Your task to perform on an android device: turn off sleep mode Image 0: 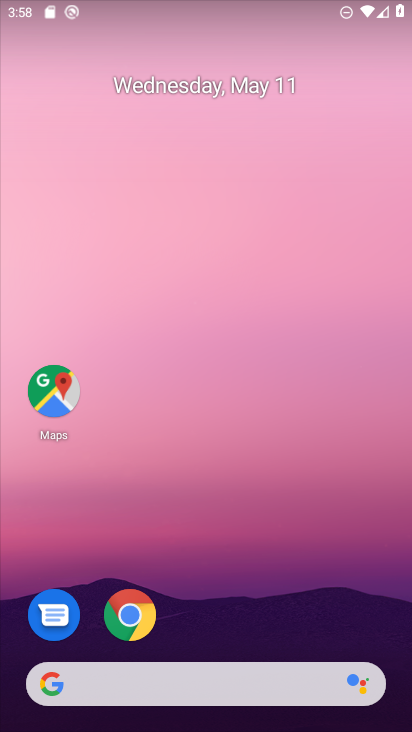
Step 0: drag from (222, 625) to (274, 15)
Your task to perform on an android device: turn off sleep mode Image 1: 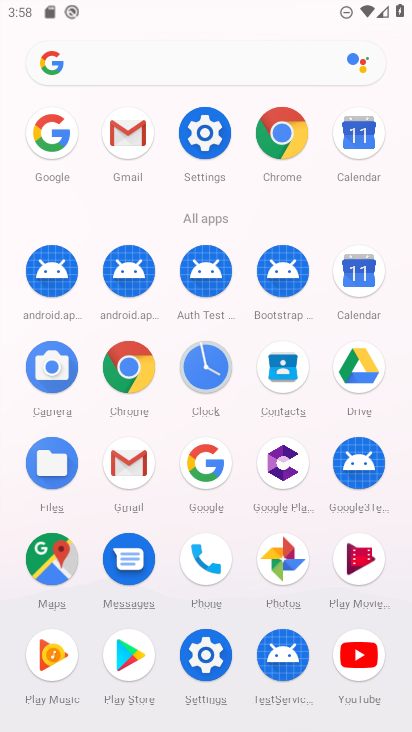
Step 1: click (213, 150)
Your task to perform on an android device: turn off sleep mode Image 2: 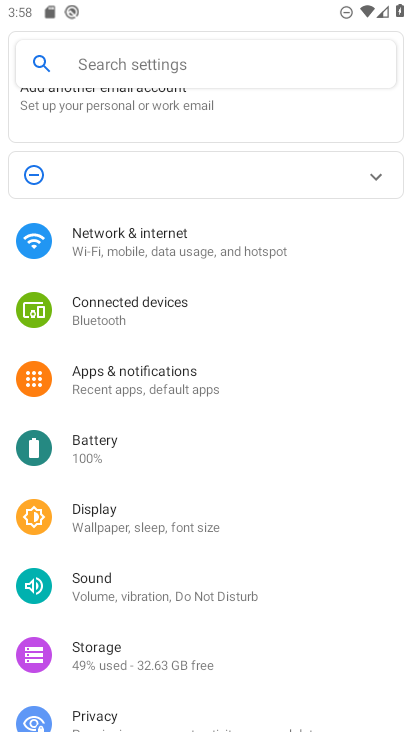
Step 2: click (203, 520)
Your task to perform on an android device: turn off sleep mode Image 3: 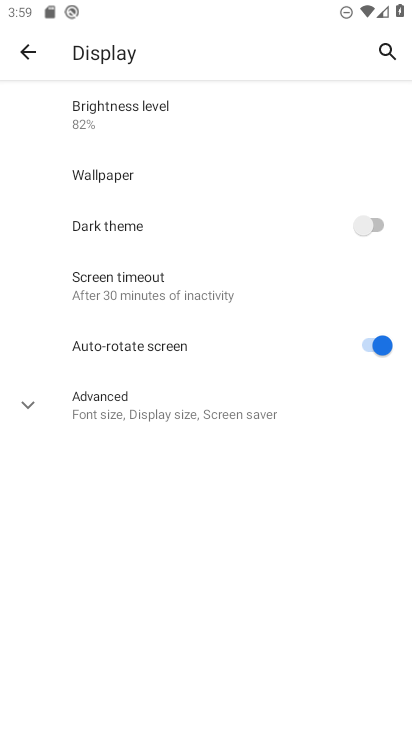
Step 3: click (186, 273)
Your task to perform on an android device: turn off sleep mode Image 4: 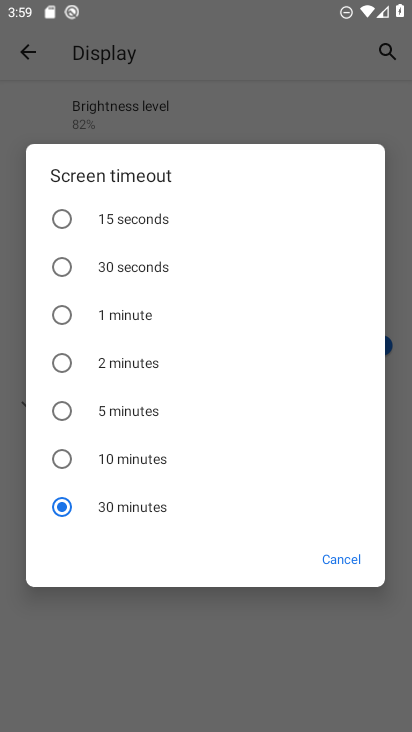
Step 4: task complete